Your task to perform on an android device: What's on my calendar today? Image 0: 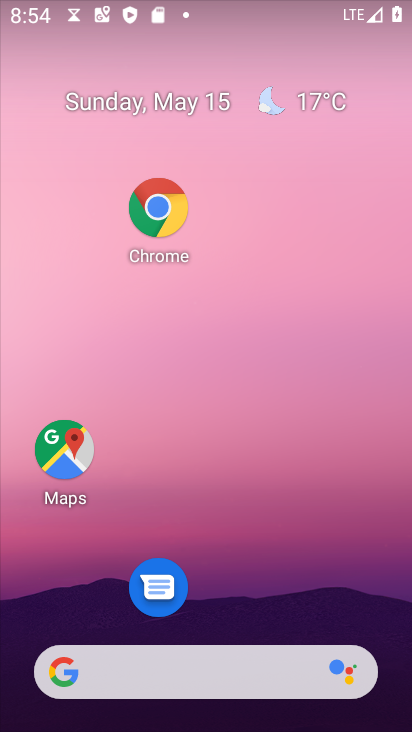
Step 0: drag from (381, 600) to (252, 156)
Your task to perform on an android device: What's on my calendar today? Image 1: 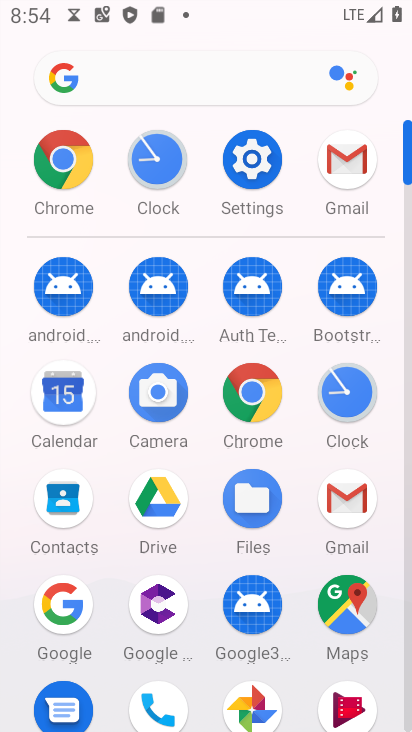
Step 1: click (67, 390)
Your task to perform on an android device: What's on my calendar today? Image 2: 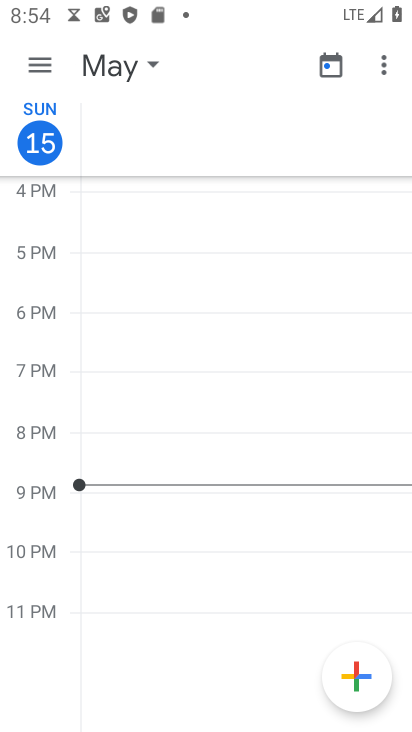
Step 2: click (144, 67)
Your task to perform on an android device: What's on my calendar today? Image 3: 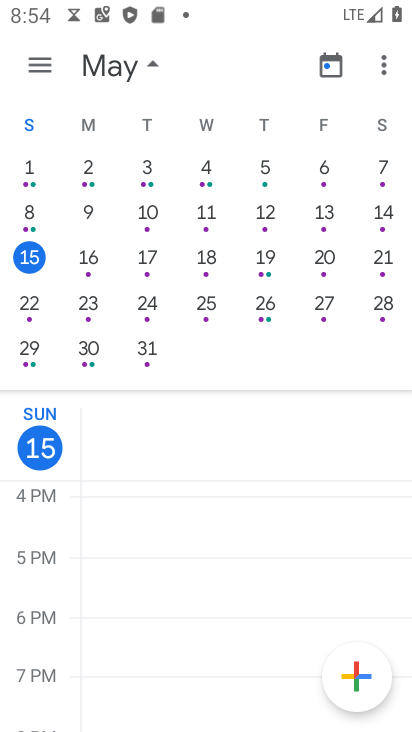
Step 3: click (45, 65)
Your task to perform on an android device: What's on my calendar today? Image 4: 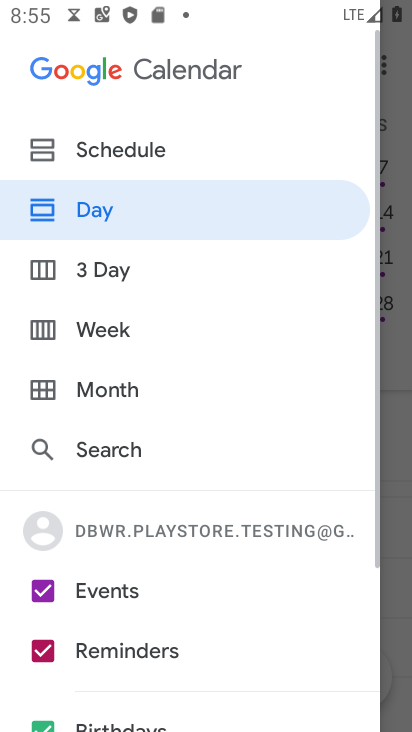
Step 4: click (136, 139)
Your task to perform on an android device: What's on my calendar today? Image 5: 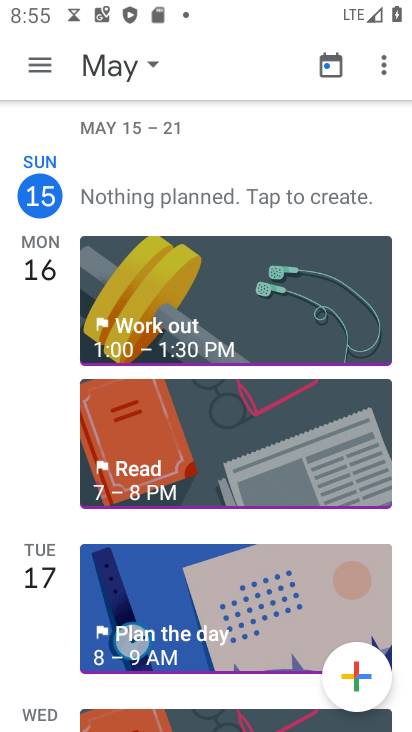
Step 5: click (151, 318)
Your task to perform on an android device: What's on my calendar today? Image 6: 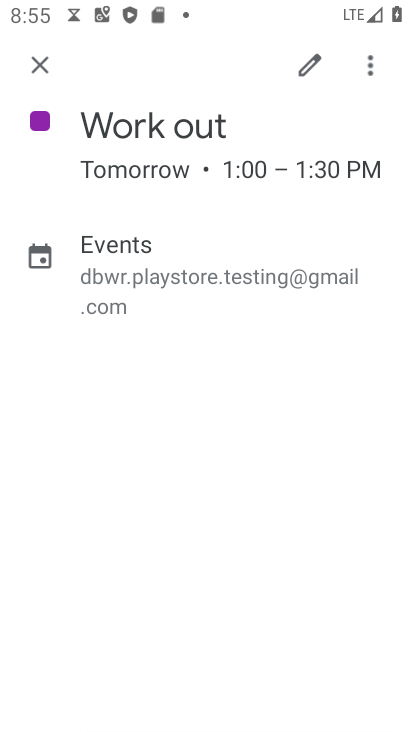
Step 6: click (36, 63)
Your task to perform on an android device: What's on my calendar today? Image 7: 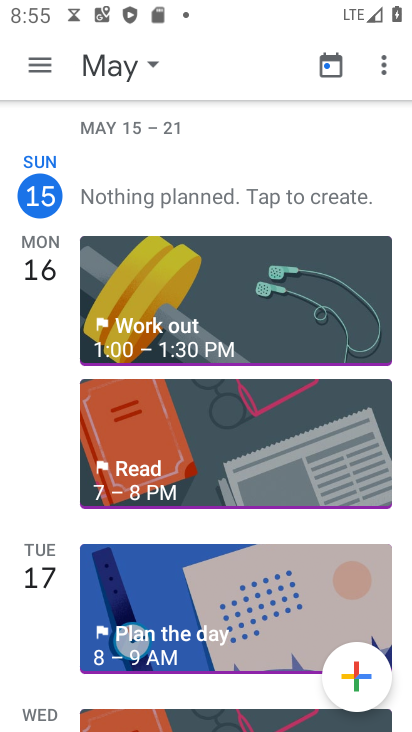
Step 7: task complete